Your task to perform on an android device: Open Chrome and go to settings Image 0: 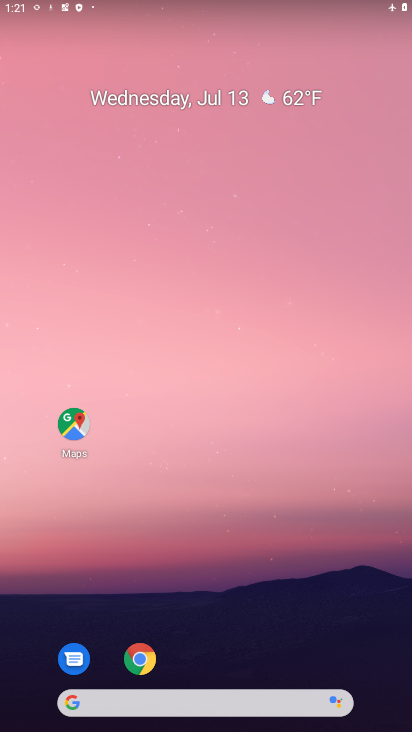
Step 0: click (140, 671)
Your task to perform on an android device: Open Chrome and go to settings Image 1: 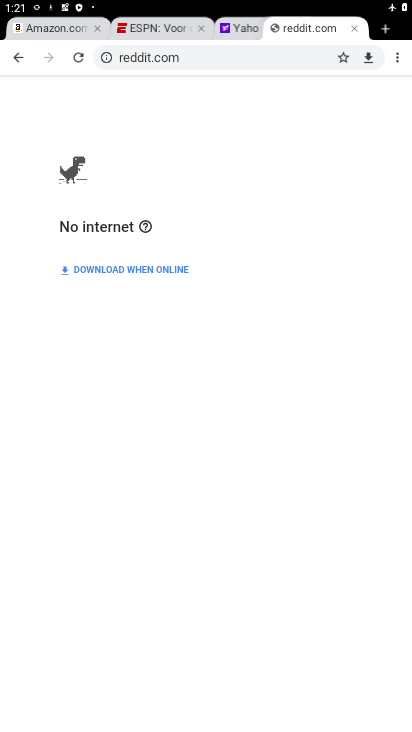
Step 1: click (399, 60)
Your task to perform on an android device: Open Chrome and go to settings Image 2: 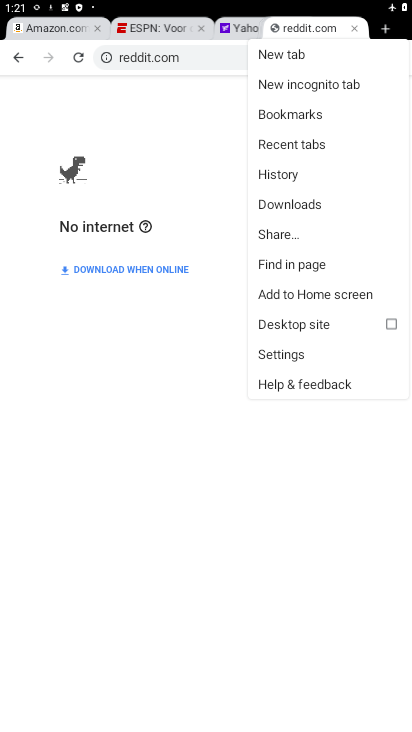
Step 2: click (285, 352)
Your task to perform on an android device: Open Chrome and go to settings Image 3: 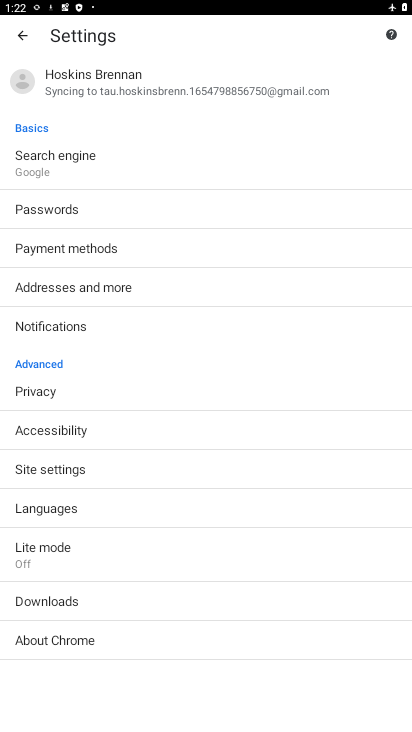
Step 3: task complete